Your task to perform on an android device: Search for lg ultragear on ebay.com, select the first entry, add it to the cart, then select checkout. Image 0: 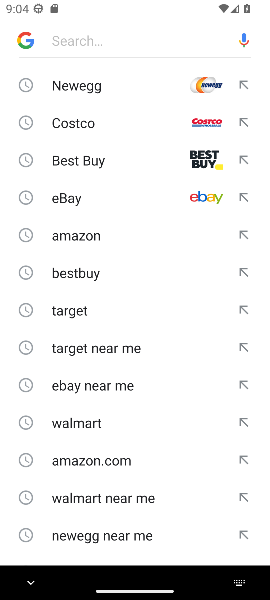
Step 0: click (59, 40)
Your task to perform on an android device: Search for lg ultragear on ebay.com, select the first entry, add it to the cart, then select checkout. Image 1: 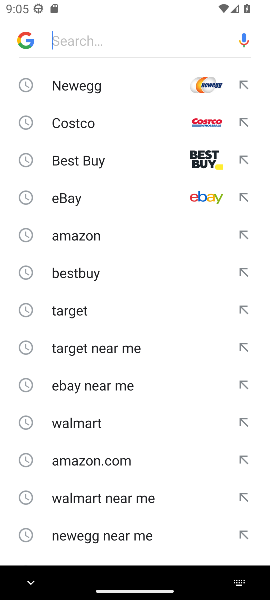
Step 1: type "ebay.com"
Your task to perform on an android device: Search for lg ultragear on ebay.com, select the first entry, add it to the cart, then select checkout. Image 2: 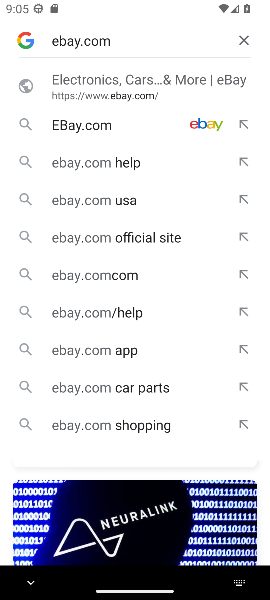
Step 2: click (74, 92)
Your task to perform on an android device: Search for lg ultragear on ebay.com, select the first entry, add it to the cart, then select checkout. Image 3: 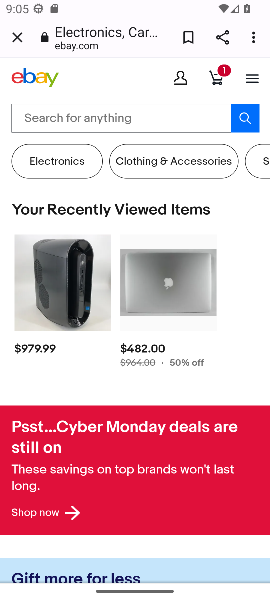
Step 3: click (44, 120)
Your task to perform on an android device: Search for lg ultragear on ebay.com, select the first entry, add it to the cart, then select checkout. Image 4: 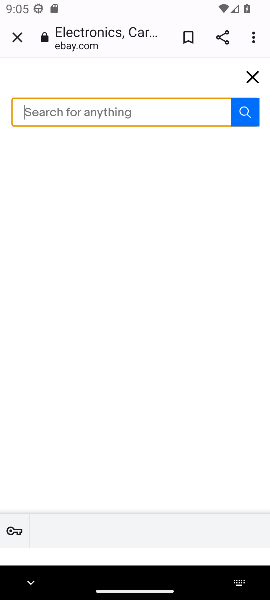
Step 4: type " lg ultragear"
Your task to perform on an android device: Search for lg ultragear on ebay.com, select the first entry, add it to the cart, then select checkout. Image 5: 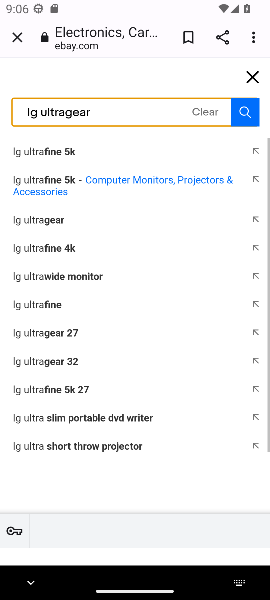
Step 5: click (44, 226)
Your task to perform on an android device: Search for lg ultragear on ebay.com, select the first entry, add it to the cart, then select checkout. Image 6: 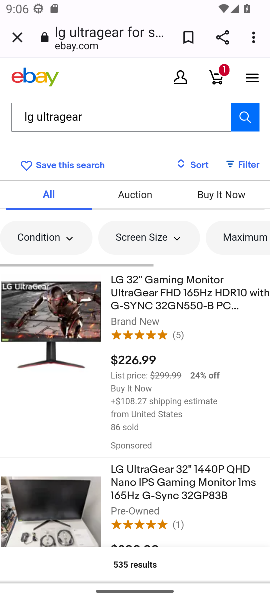
Step 6: click (152, 298)
Your task to perform on an android device: Search for lg ultragear on ebay.com, select the first entry, add it to the cart, then select checkout. Image 7: 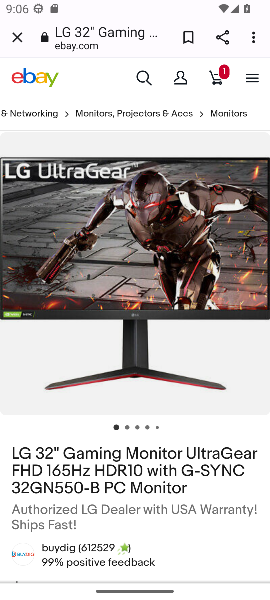
Step 7: drag from (115, 489) to (111, 278)
Your task to perform on an android device: Search for lg ultragear on ebay.com, select the first entry, add it to the cart, then select checkout. Image 8: 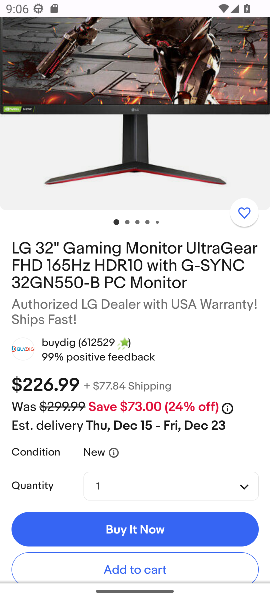
Step 8: drag from (126, 448) to (135, 262)
Your task to perform on an android device: Search for lg ultragear on ebay.com, select the first entry, add it to the cart, then select checkout. Image 9: 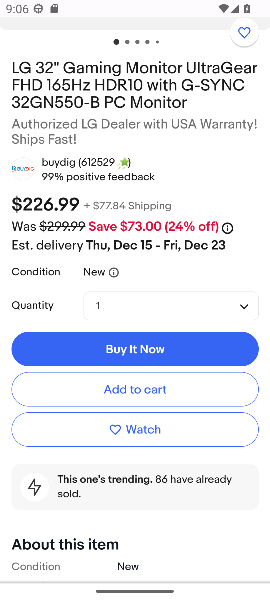
Step 9: click (115, 384)
Your task to perform on an android device: Search for lg ultragear on ebay.com, select the first entry, add it to the cart, then select checkout. Image 10: 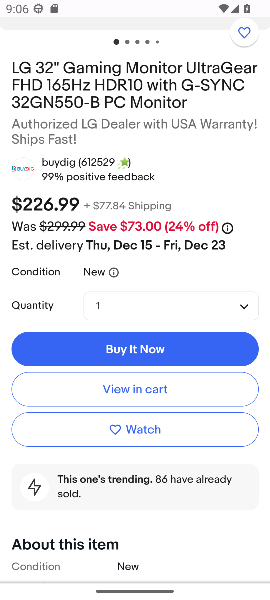
Step 10: click (116, 388)
Your task to perform on an android device: Search for lg ultragear on ebay.com, select the first entry, add it to the cart, then select checkout. Image 11: 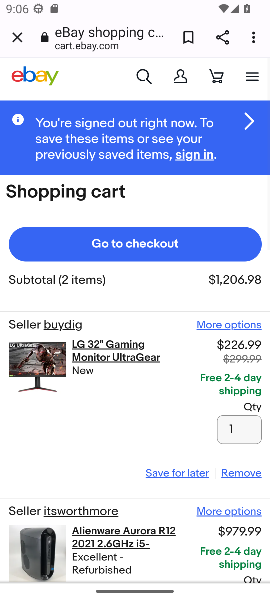
Step 11: click (141, 244)
Your task to perform on an android device: Search for lg ultragear on ebay.com, select the first entry, add it to the cart, then select checkout. Image 12: 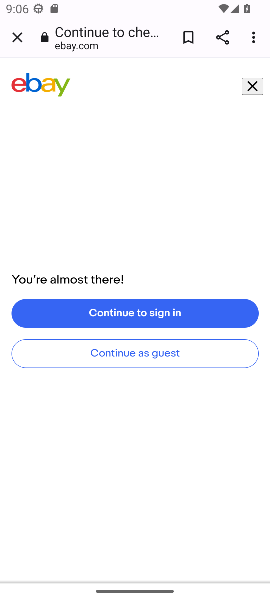
Step 12: task complete